Your task to perform on an android device: turn on improve location accuracy Image 0: 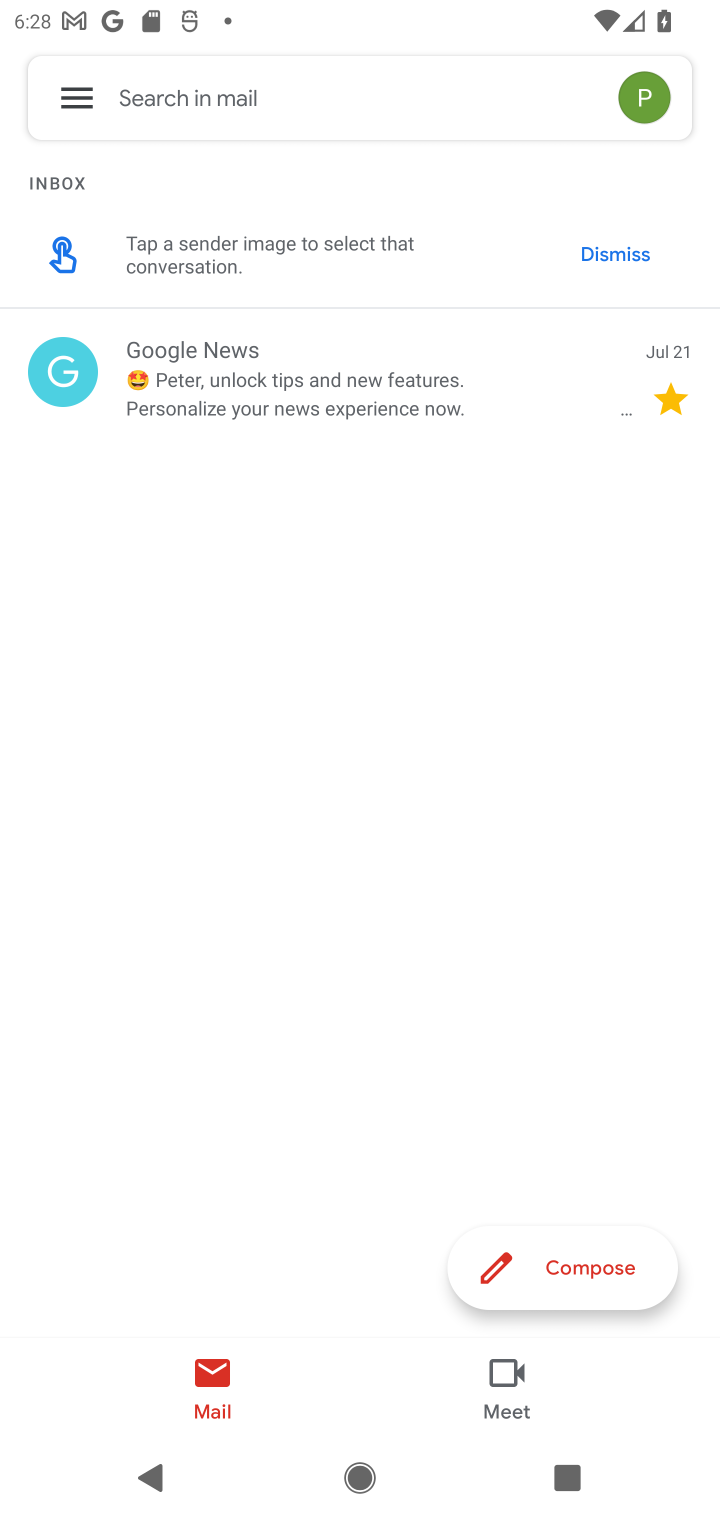
Step 0: press home button
Your task to perform on an android device: turn on improve location accuracy Image 1: 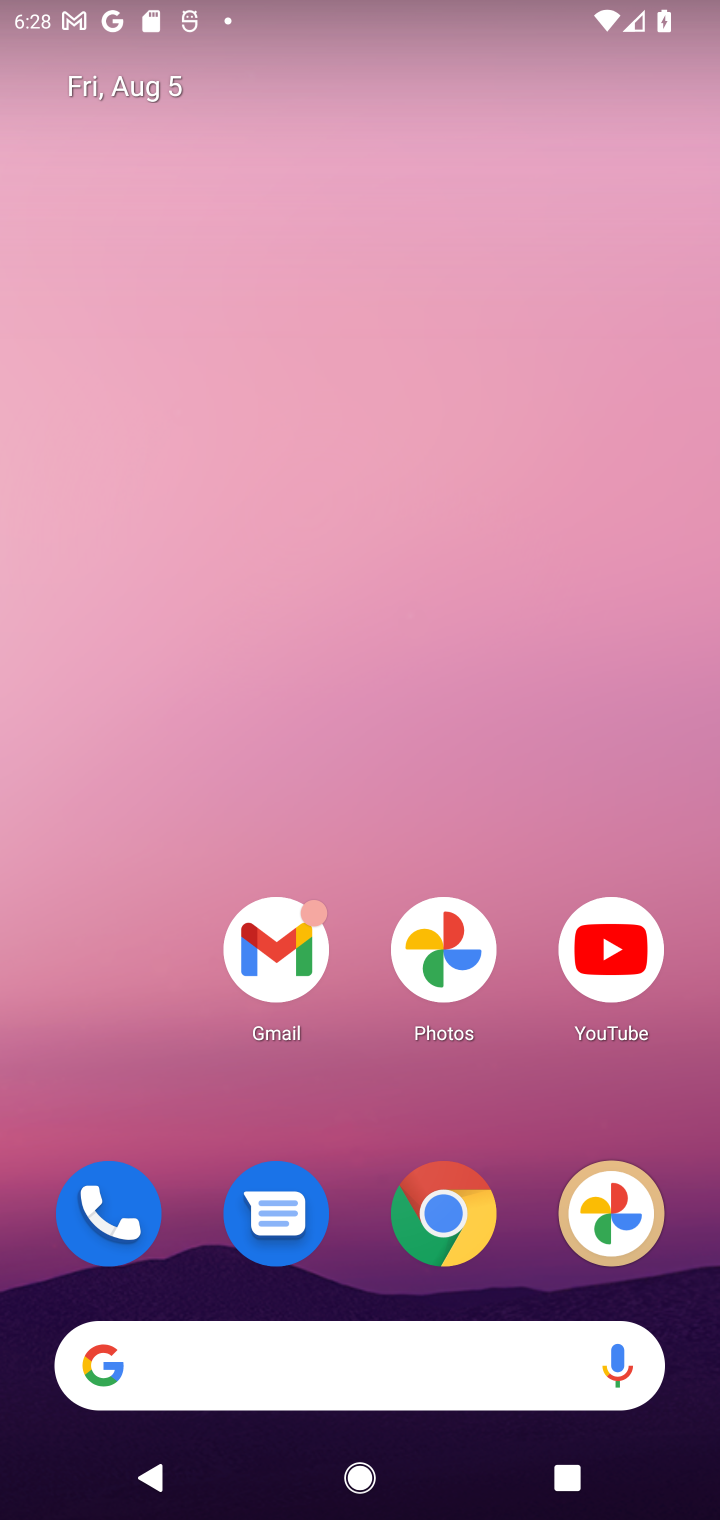
Step 1: click (342, 46)
Your task to perform on an android device: turn on improve location accuracy Image 2: 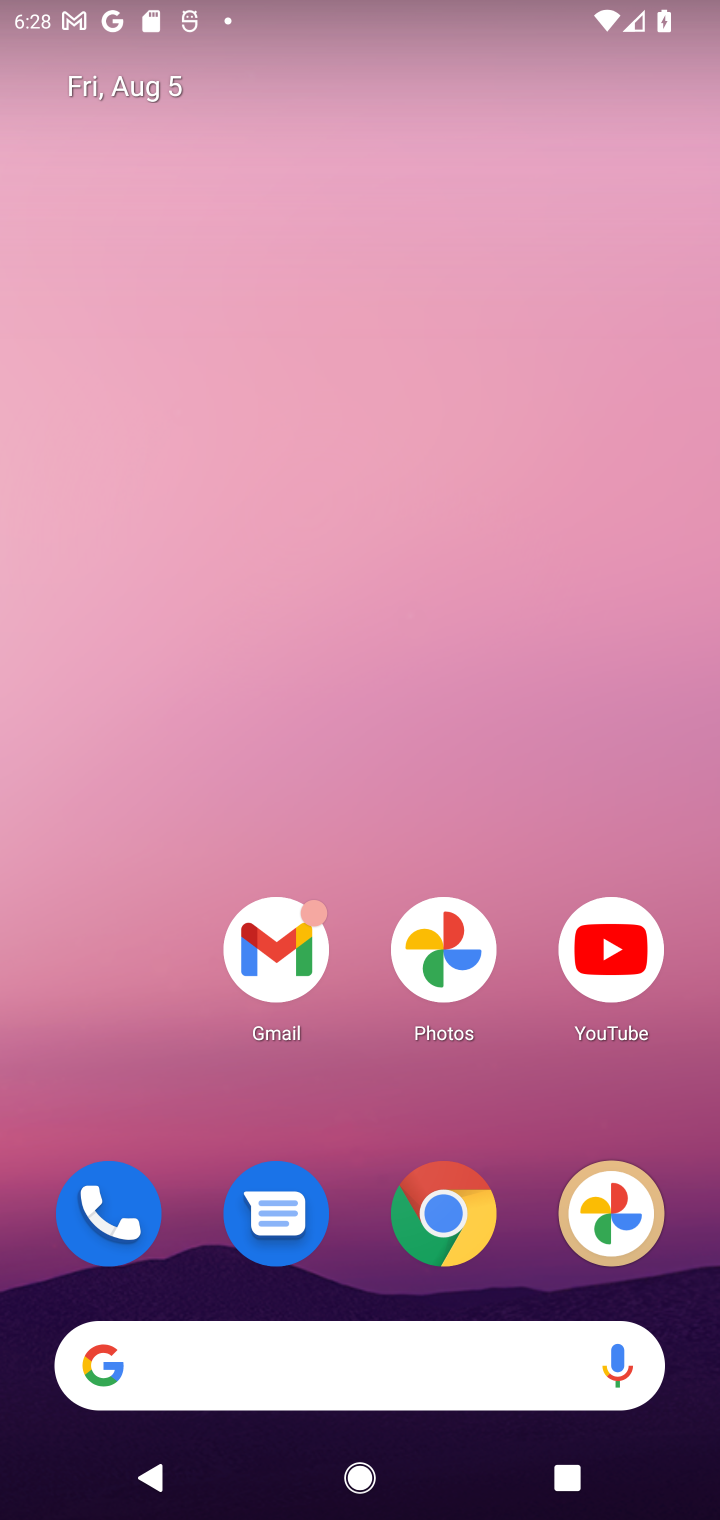
Step 2: drag from (345, 1153) to (374, 25)
Your task to perform on an android device: turn on improve location accuracy Image 3: 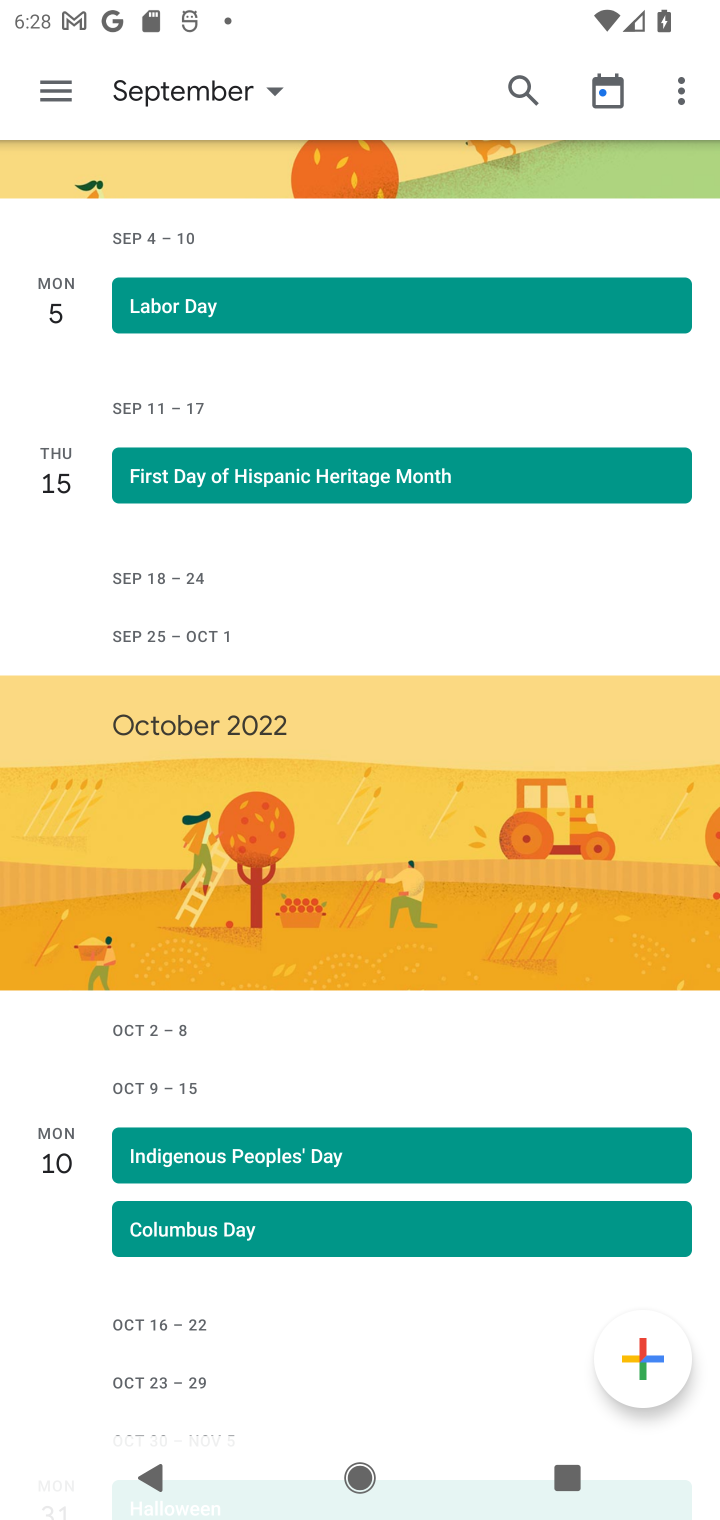
Step 3: click (63, 89)
Your task to perform on an android device: turn on improve location accuracy Image 4: 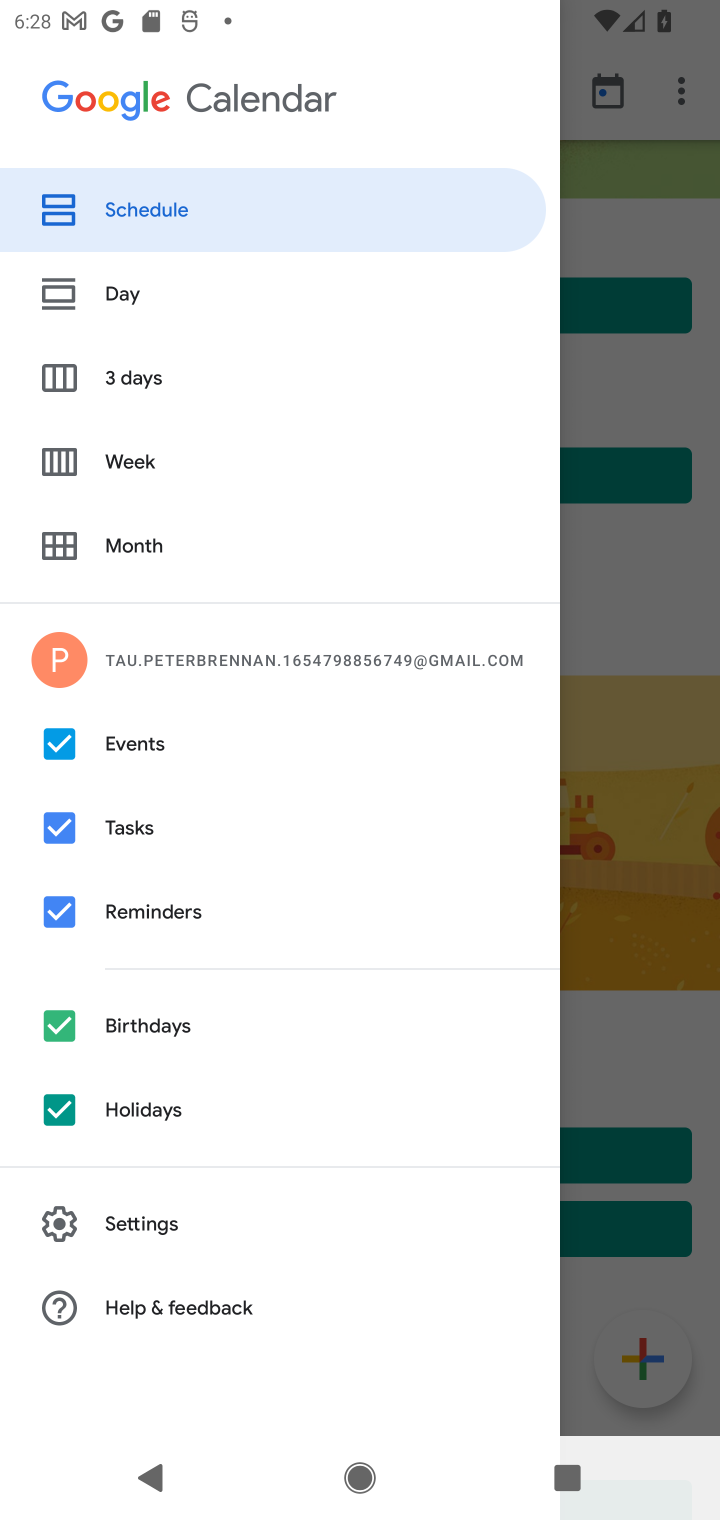
Step 4: task complete